Your task to perform on an android device: toggle wifi Image 0: 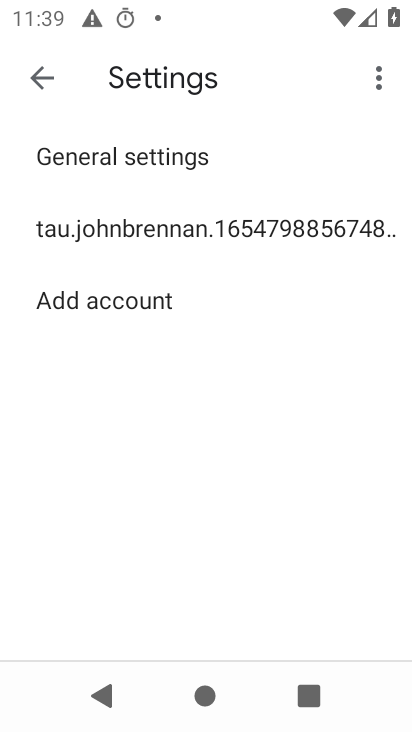
Step 0: press back button
Your task to perform on an android device: toggle wifi Image 1: 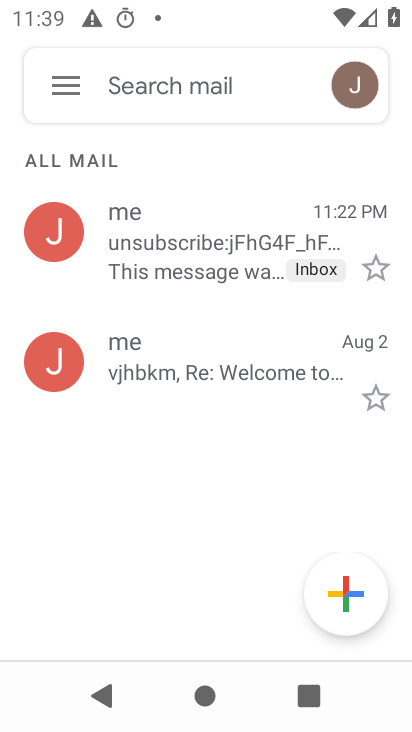
Step 1: drag from (129, 18) to (169, 514)
Your task to perform on an android device: toggle wifi Image 2: 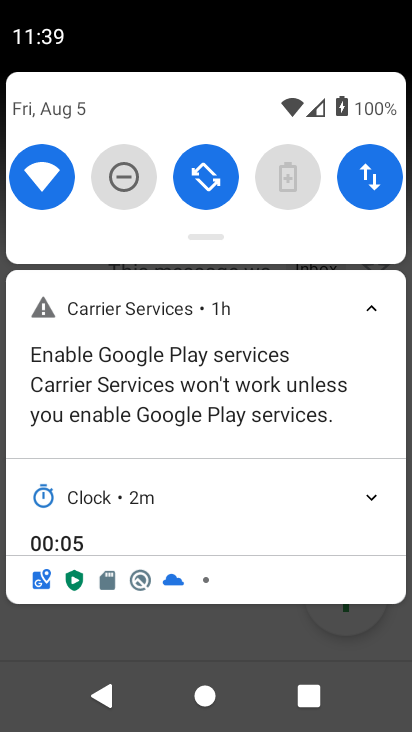
Step 2: click (40, 185)
Your task to perform on an android device: toggle wifi Image 3: 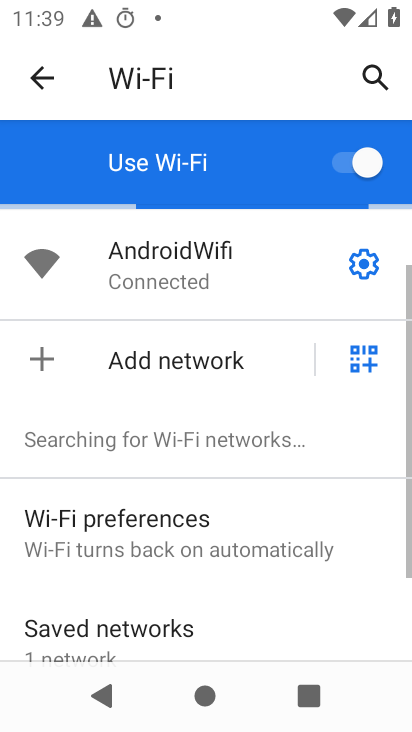
Step 3: task complete